Your task to perform on an android device: all mails in gmail Image 0: 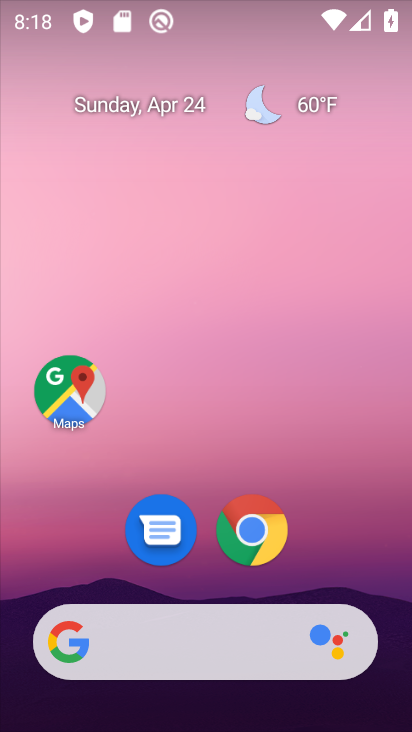
Step 0: drag from (86, 603) to (229, 93)
Your task to perform on an android device: all mails in gmail Image 1: 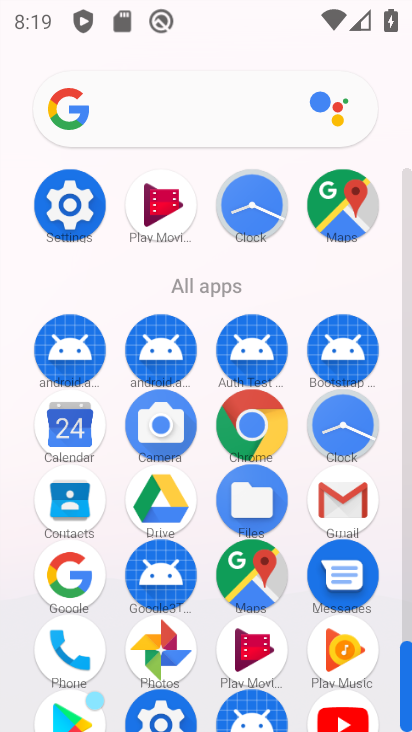
Step 1: click (353, 507)
Your task to perform on an android device: all mails in gmail Image 2: 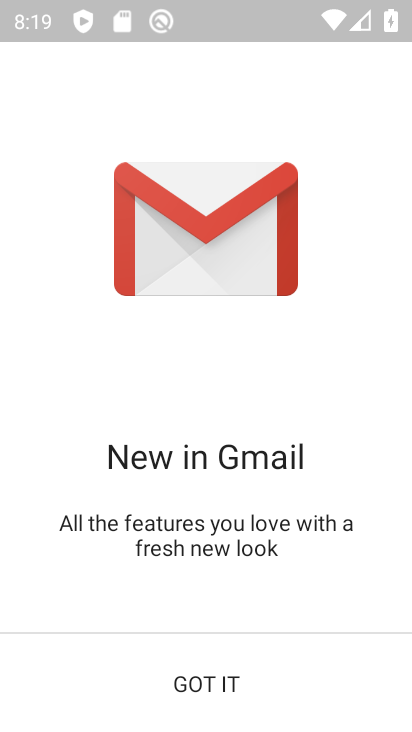
Step 2: click (229, 673)
Your task to perform on an android device: all mails in gmail Image 3: 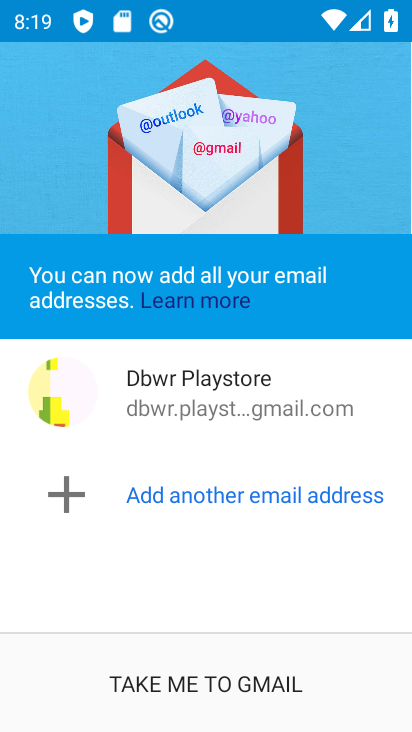
Step 3: click (229, 673)
Your task to perform on an android device: all mails in gmail Image 4: 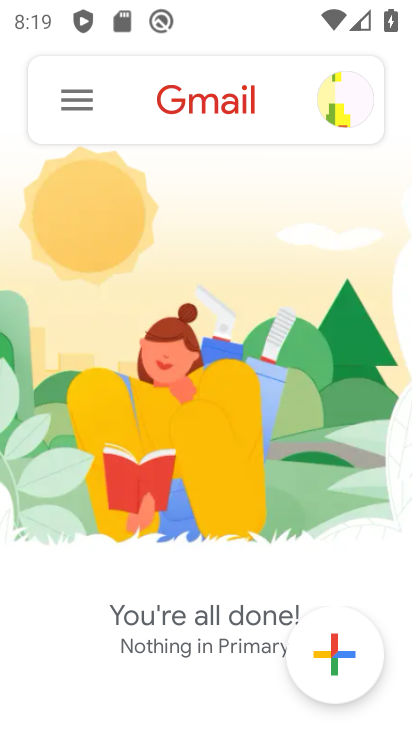
Step 4: click (86, 109)
Your task to perform on an android device: all mails in gmail Image 5: 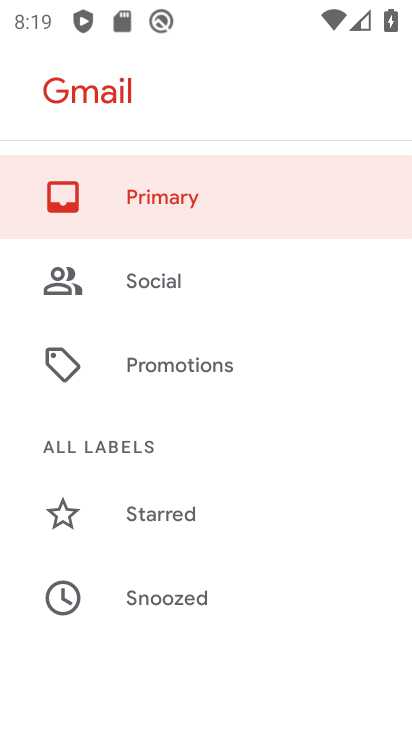
Step 5: drag from (145, 574) to (311, 114)
Your task to perform on an android device: all mails in gmail Image 6: 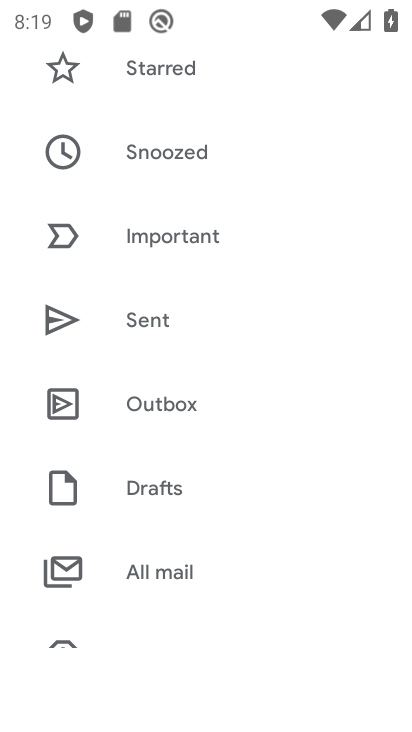
Step 6: click (174, 567)
Your task to perform on an android device: all mails in gmail Image 7: 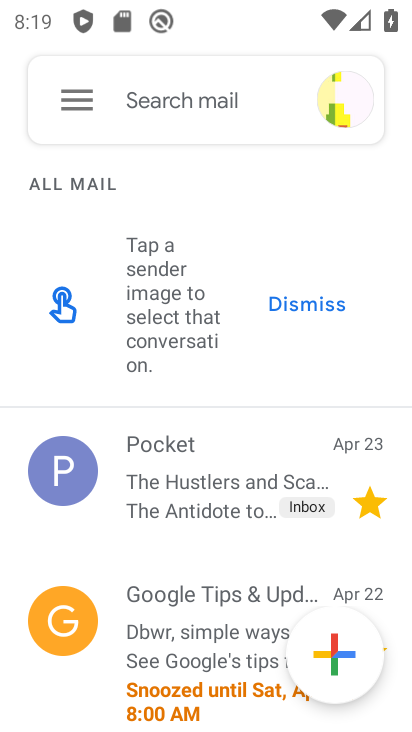
Step 7: task complete